Your task to perform on an android device: move an email to a new category in the gmail app Image 0: 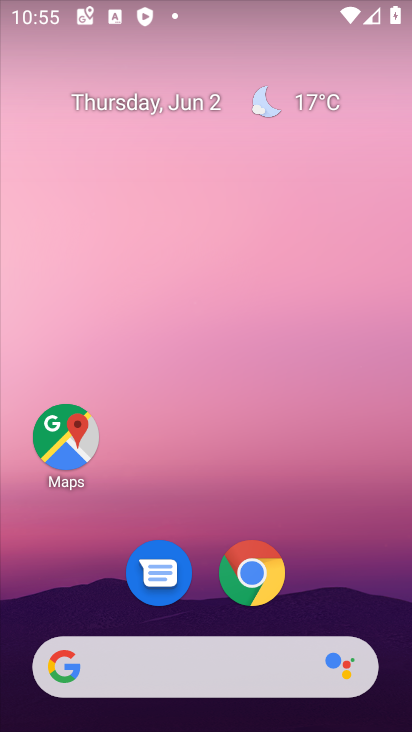
Step 0: drag from (341, 592) to (362, 5)
Your task to perform on an android device: move an email to a new category in the gmail app Image 1: 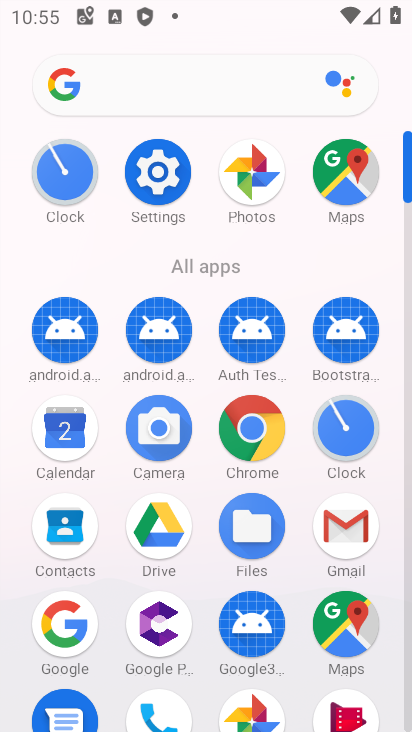
Step 1: click (357, 528)
Your task to perform on an android device: move an email to a new category in the gmail app Image 2: 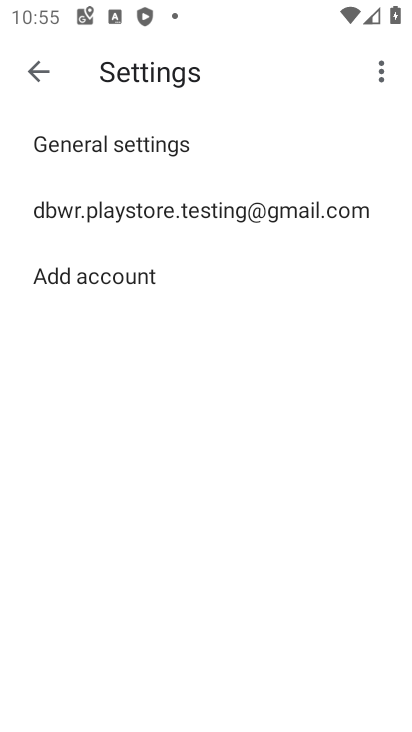
Step 2: click (30, 76)
Your task to perform on an android device: move an email to a new category in the gmail app Image 3: 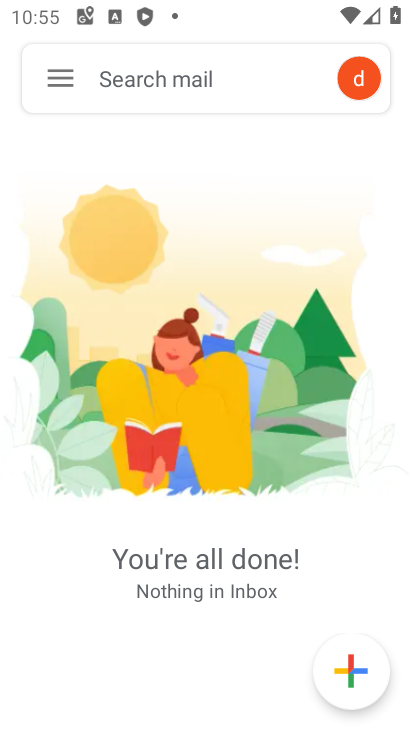
Step 3: click (55, 60)
Your task to perform on an android device: move an email to a new category in the gmail app Image 4: 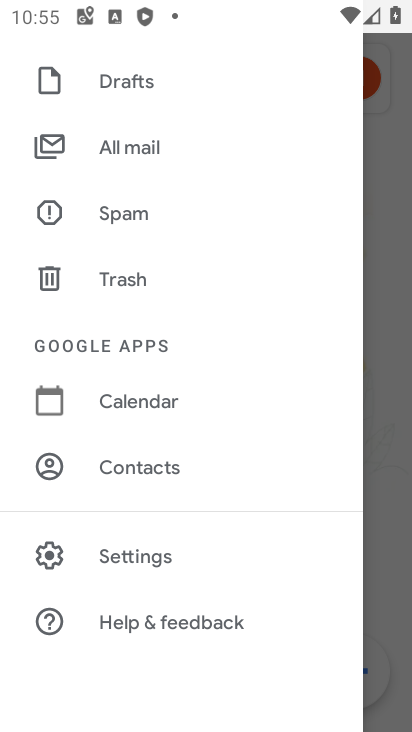
Step 4: click (381, 320)
Your task to perform on an android device: move an email to a new category in the gmail app Image 5: 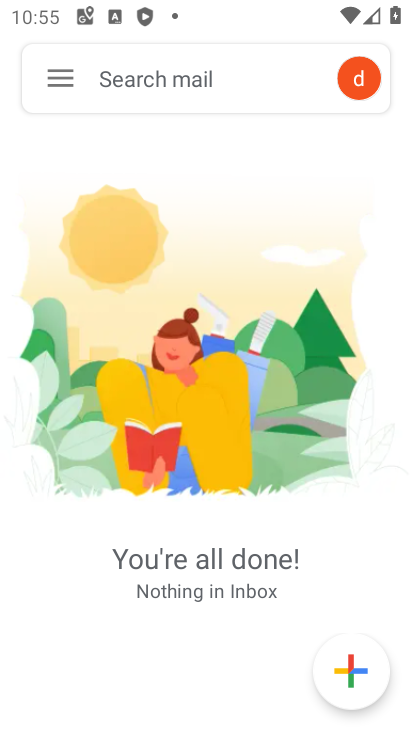
Step 5: task complete